Your task to perform on an android device: set an alarm Image 0: 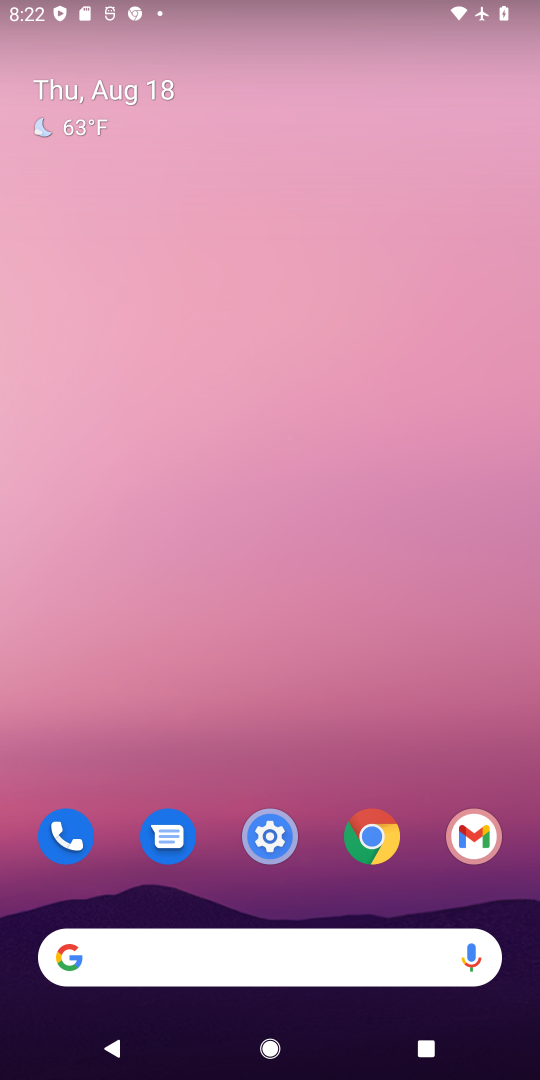
Step 0: drag from (328, 757) to (239, 150)
Your task to perform on an android device: set an alarm Image 1: 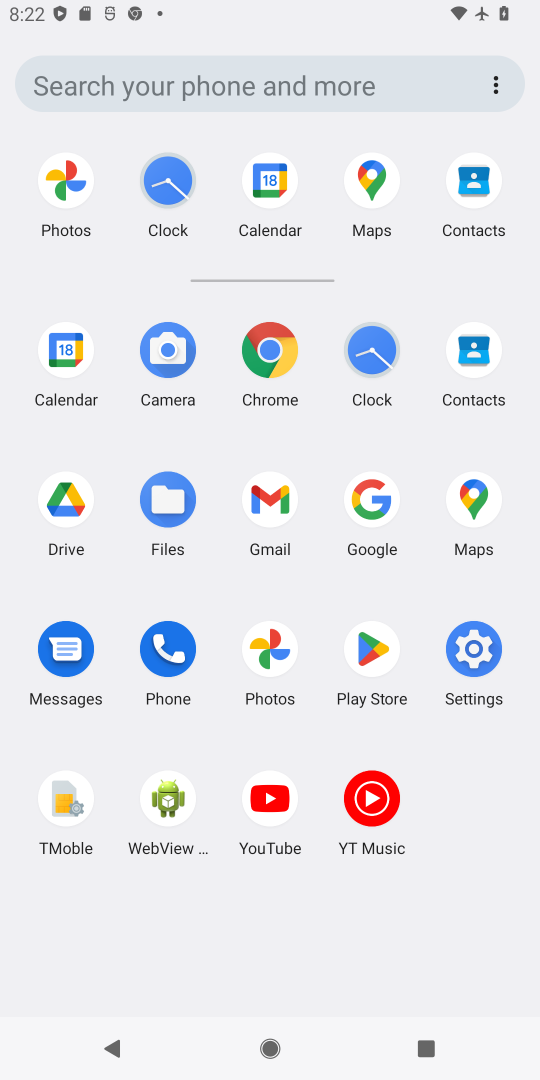
Step 1: click (372, 348)
Your task to perform on an android device: set an alarm Image 2: 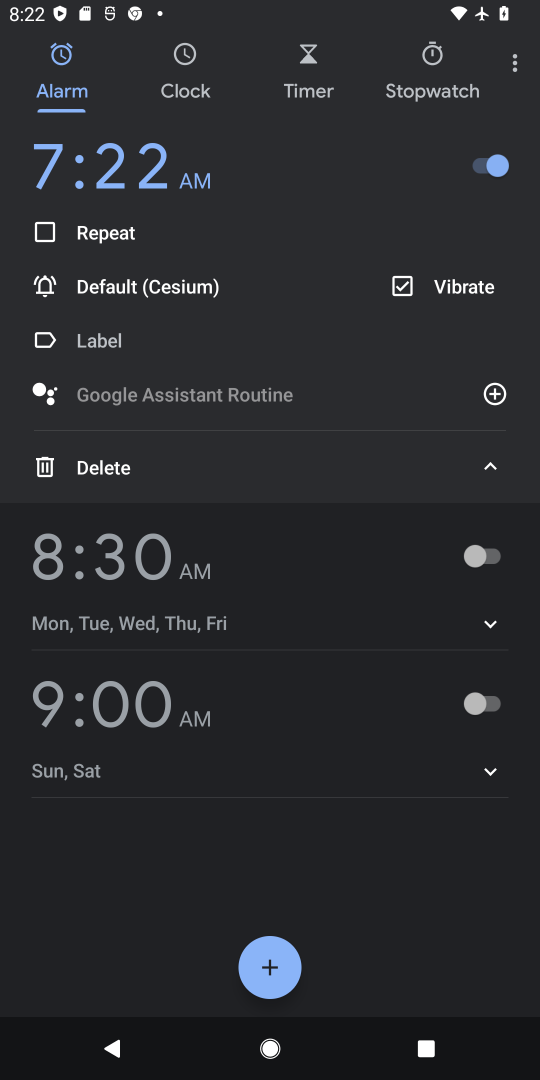
Step 2: click (266, 982)
Your task to perform on an android device: set an alarm Image 3: 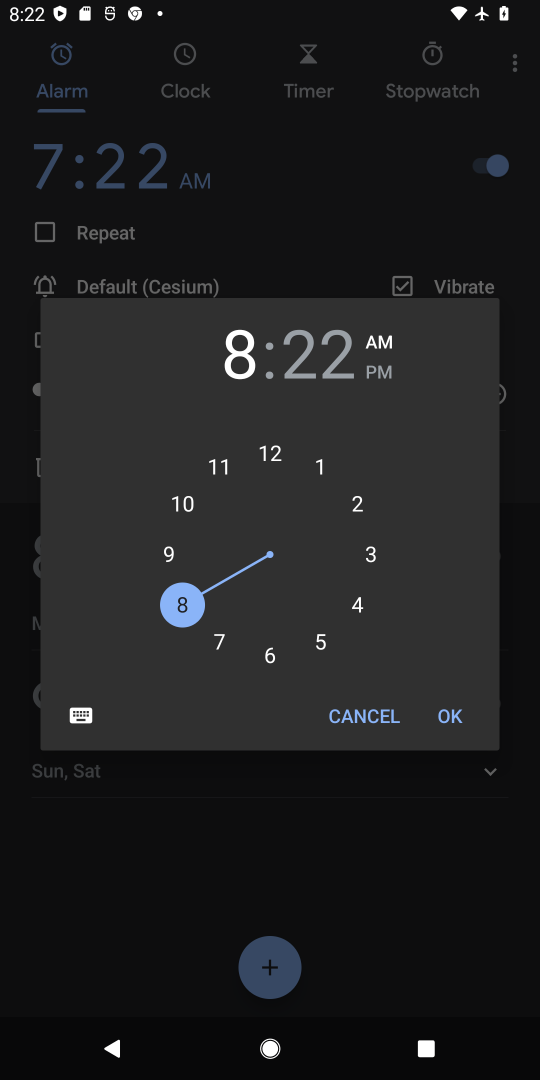
Step 3: click (459, 723)
Your task to perform on an android device: set an alarm Image 4: 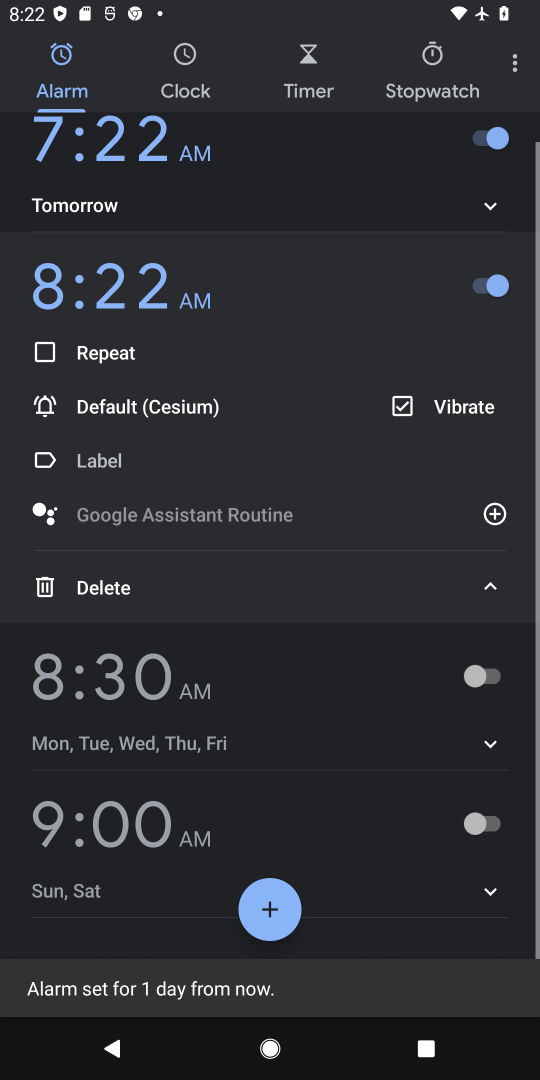
Step 4: task complete